Your task to perform on an android device: Open the map Image 0: 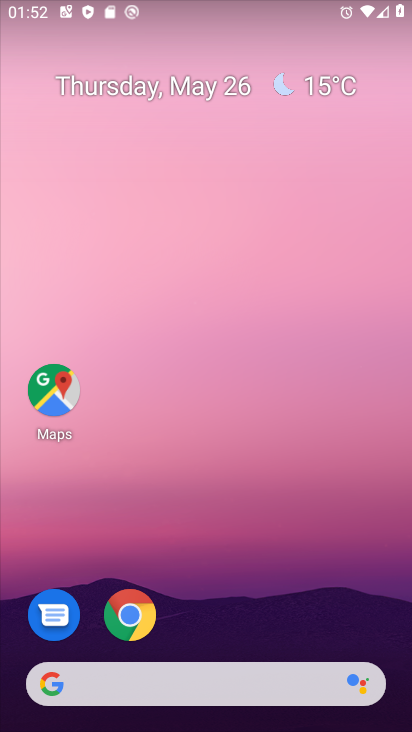
Step 0: click (52, 382)
Your task to perform on an android device: Open the map Image 1: 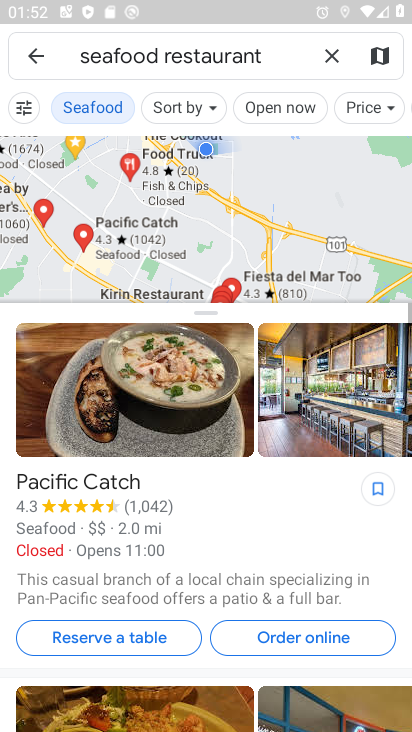
Step 1: task complete